Your task to perform on an android device: check google app version Image 0: 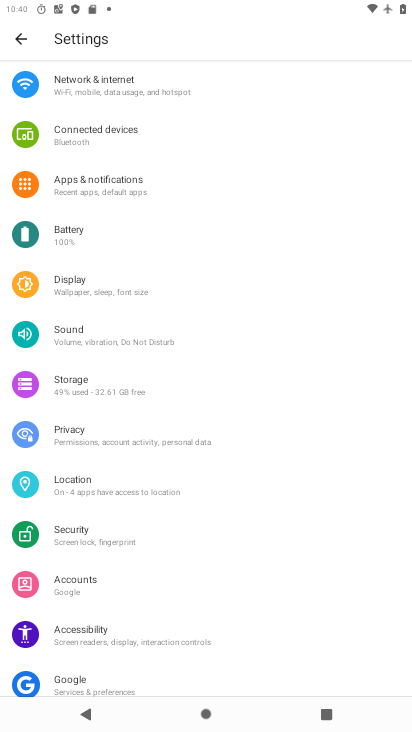
Step 0: press home button
Your task to perform on an android device: check google app version Image 1: 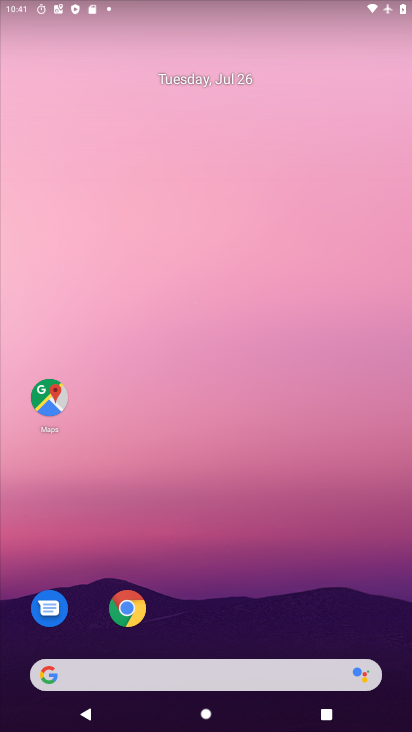
Step 1: drag from (196, 594) to (249, 98)
Your task to perform on an android device: check google app version Image 2: 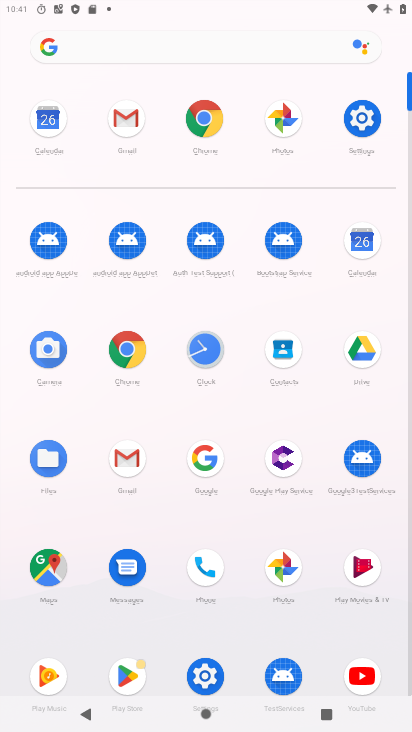
Step 2: click (188, 483)
Your task to perform on an android device: check google app version Image 3: 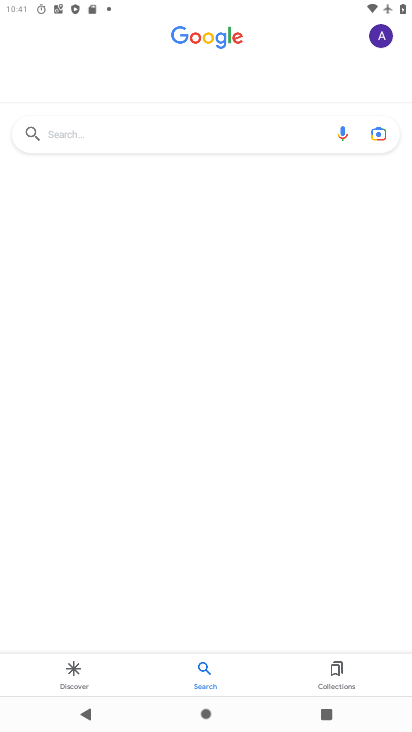
Step 3: click (380, 41)
Your task to perform on an android device: check google app version Image 4: 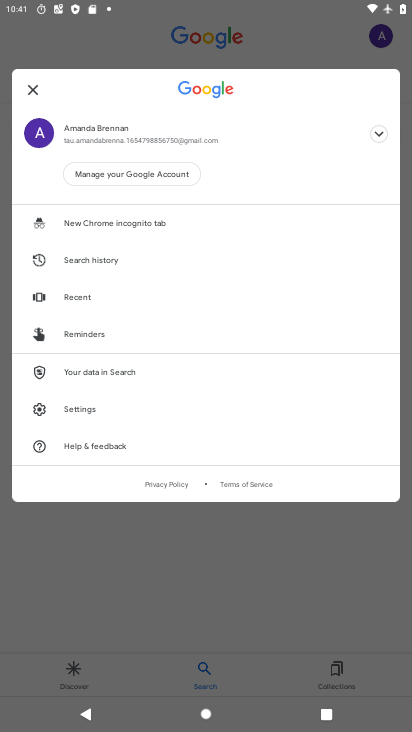
Step 4: click (89, 405)
Your task to perform on an android device: check google app version Image 5: 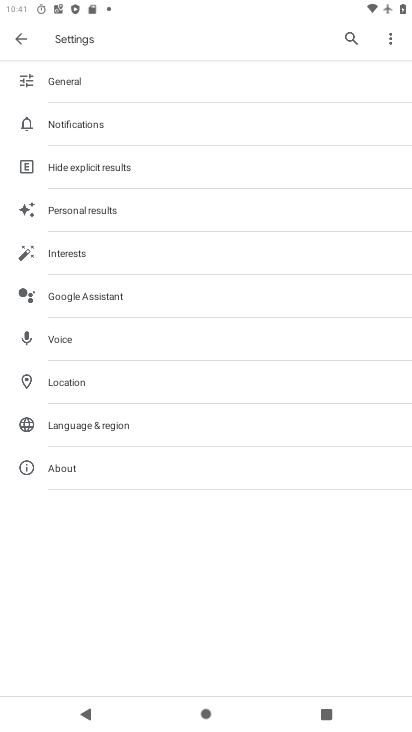
Step 5: click (62, 464)
Your task to perform on an android device: check google app version Image 6: 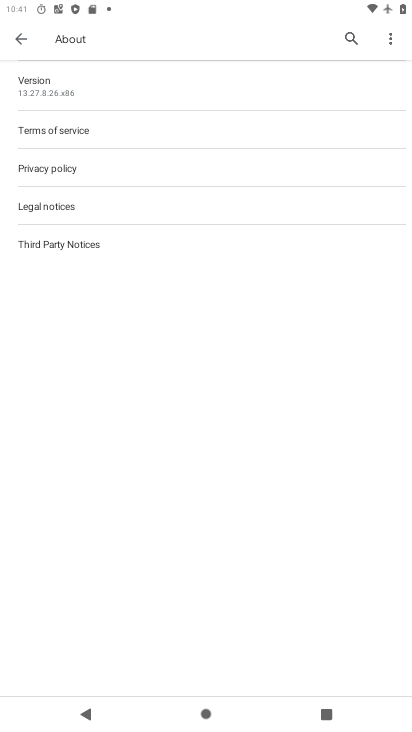
Step 6: click (76, 101)
Your task to perform on an android device: check google app version Image 7: 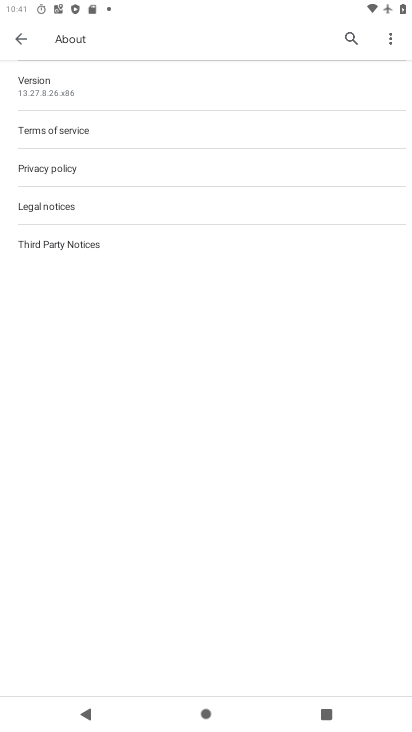
Step 7: task complete